Your task to perform on an android device: turn on showing notifications on the lock screen Image 0: 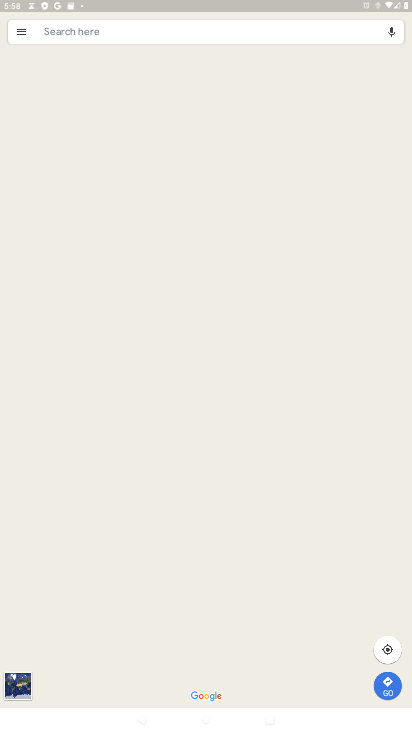
Step 0: press home button
Your task to perform on an android device: turn on showing notifications on the lock screen Image 1: 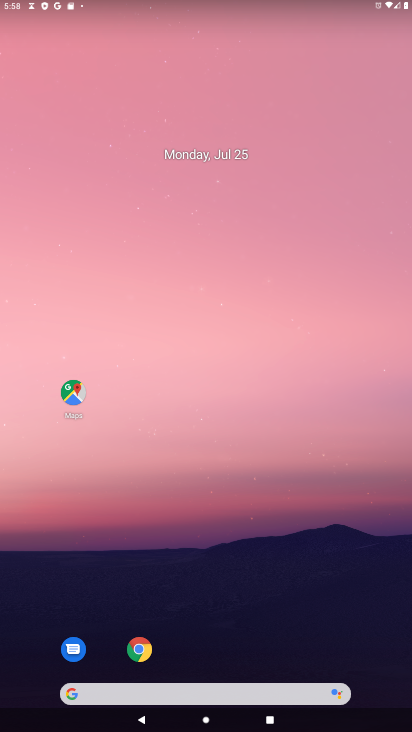
Step 1: drag from (276, 707) to (273, 79)
Your task to perform on an android device: turn on showing notifications on the lock screen Image 2: 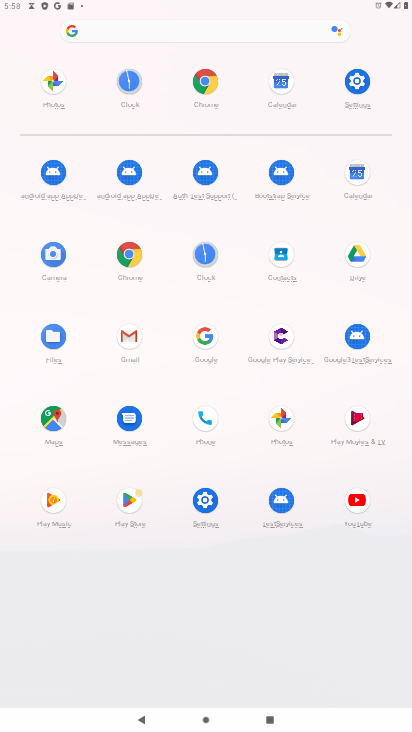
Step 2: click (363, 79)
Your task to perform on an android device: turn on showing notifications on the lock screen Image 3: 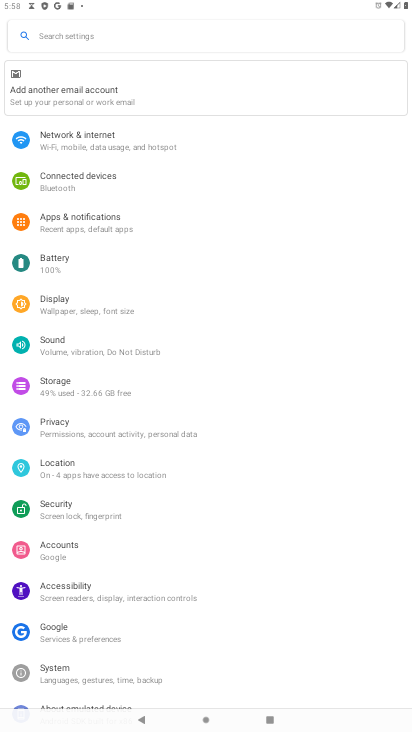
Step 3: click (153, 231)
Your task to perform on an android device: turn on showing notifications on the lock screen Image 4: 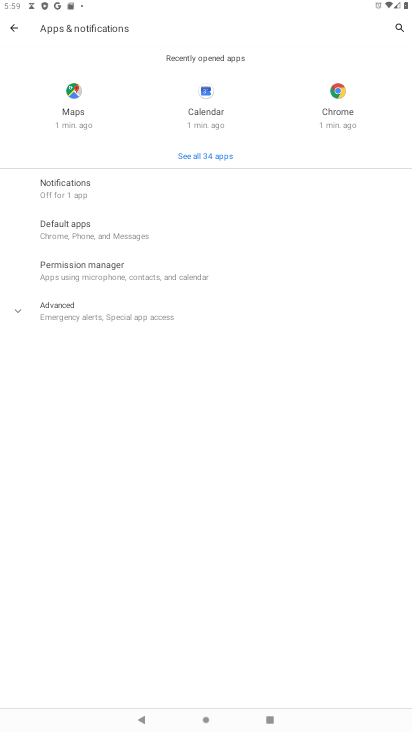
Step 4: click (76, 183)
Your task to perform on an android device: turn on showing notifications on the lock screen Image 5: 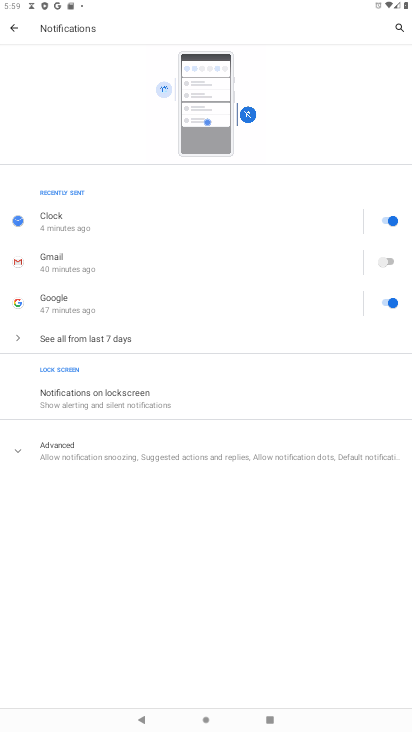
Step 5: click (98, 399)
Your task to perform on an android device: turn on showing notifications on the lock screen Image 6: 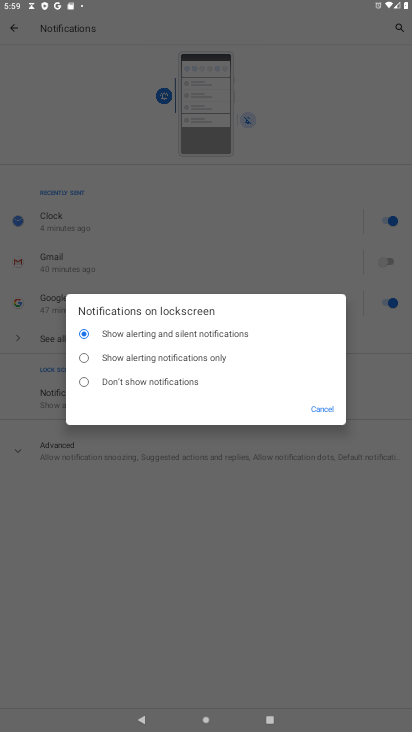
Step 6: task complete